Your task to perform on an android device: Open Google Chrome Image 0: 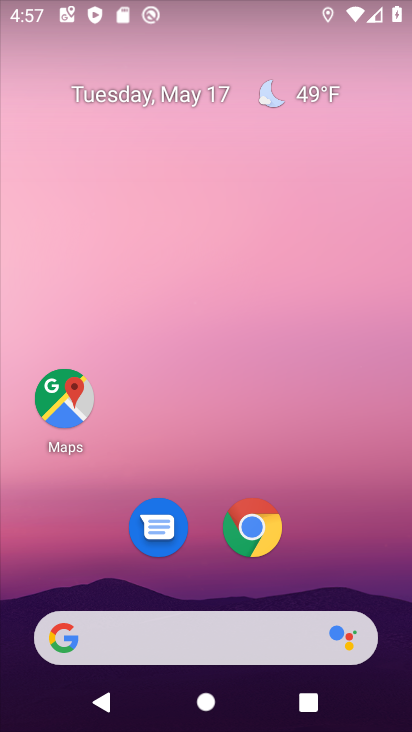
Step 0: drag from (336, 524) to (285, 63)
Your task to perform on an android device: Open Google Chrome Image 1: 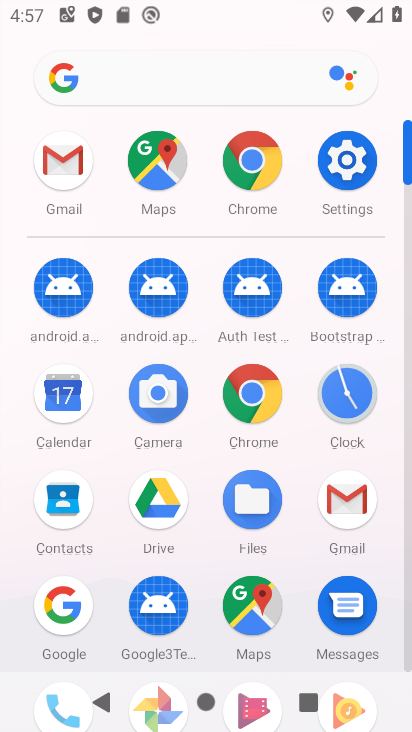
Step 1: drag from (0, 445) to (23, 163)
Your task to perform on an android device: Open Google Chrome Image 2: 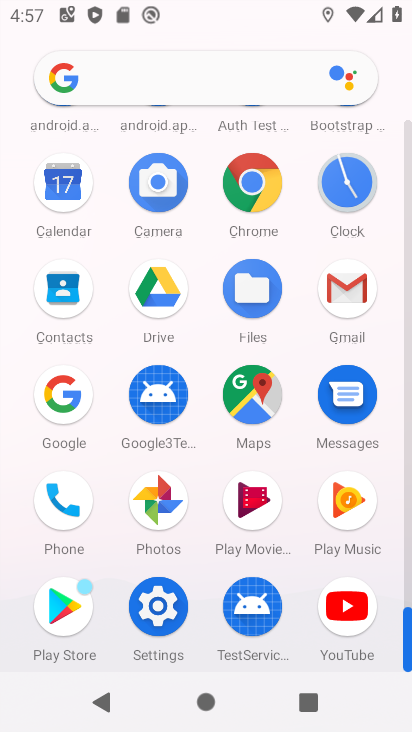
Step 2: click (255, 177)
Your task to perform on an android device: Open Google Chrome Image 3: 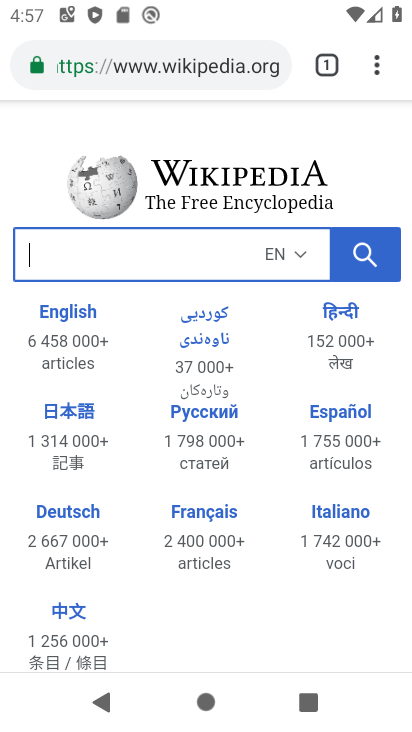
Step 3: task complete